Your task to perform on an android device: turn on translation in the chrome app Image 0: 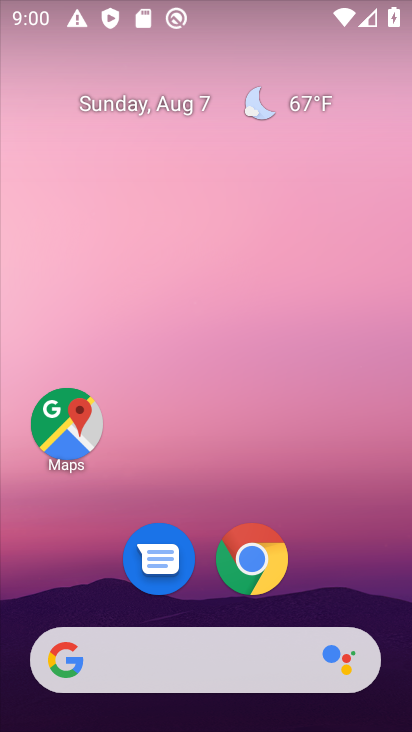
Step 0: drag from (186, 648) to (370, 13)
Your task to perform on an android device: turn on translation in the chrome app Image 1: 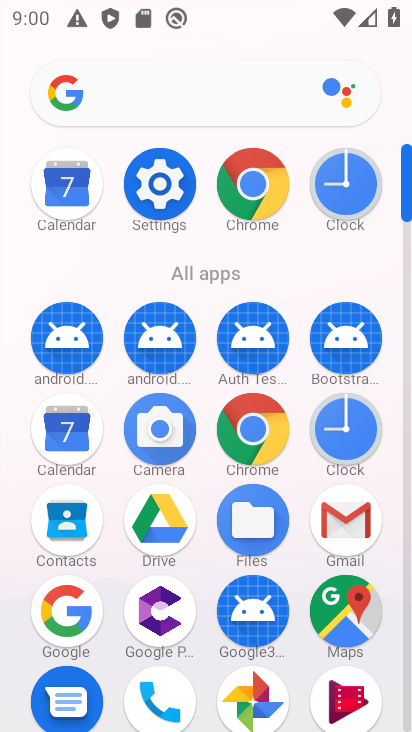
Step 1: click (256, 182)
Your task to perform on an android device: turn on translation in the chrome app Image 2: 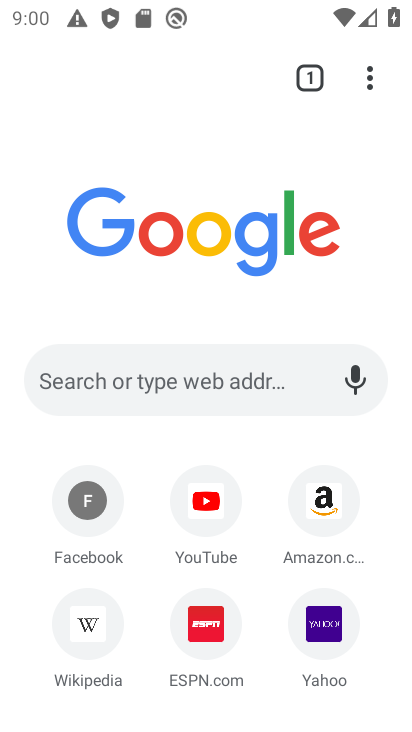
Step 2: click (371, 77)
Your task to perform on an android device: turn on translation in the chrome app Image 3: 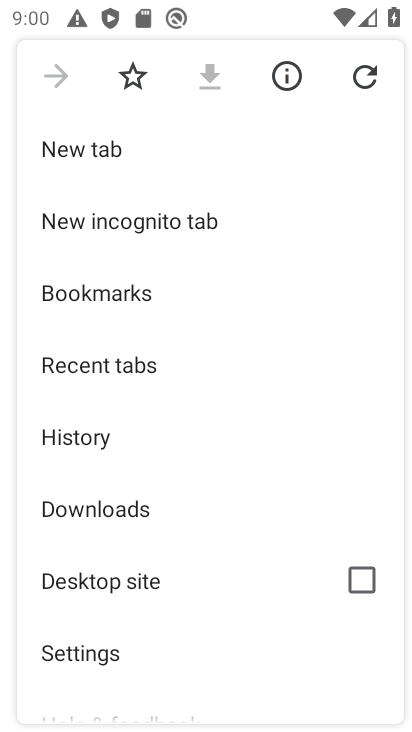
Step 3: click (80, 646)
Your task to perform on an android device: turn on translation in the chrome app Image 4: 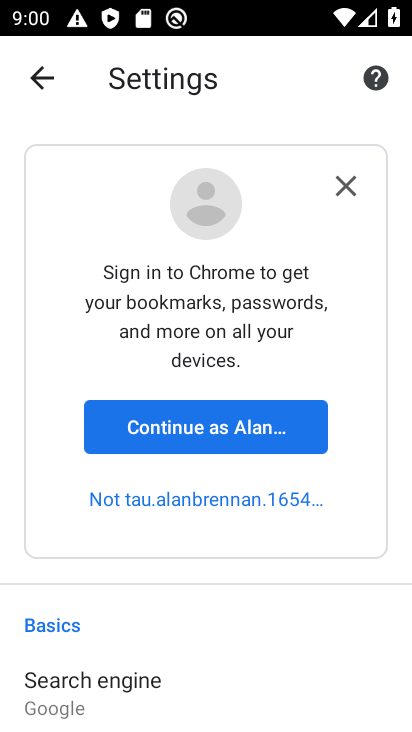
Step 4: drag from (343, 680) to (345, 165)
Your task to perform on an android device: turn on translation in the chrome app Image 5: 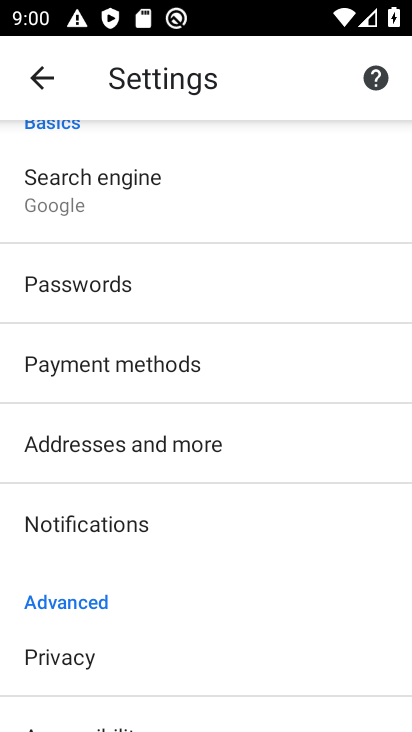
Step 5: drag from (384, 593) to (368, 169)
Your task to perform on an android device: turn on translation in the chrome app Image 6: 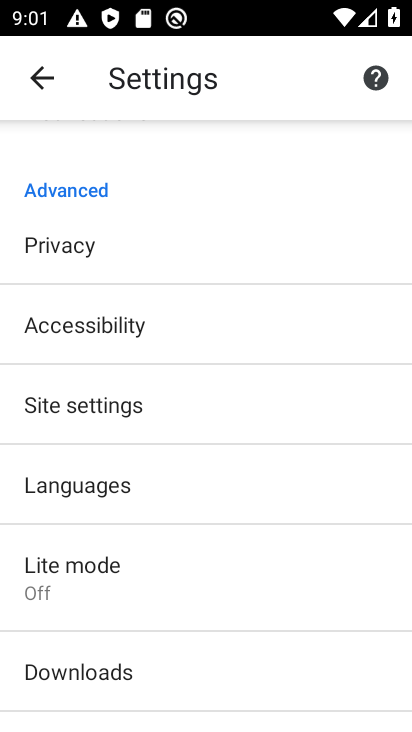
Step 6: click (169, 473)
Your task to perform on an android device: turn on translation in the chrome app Image 7: 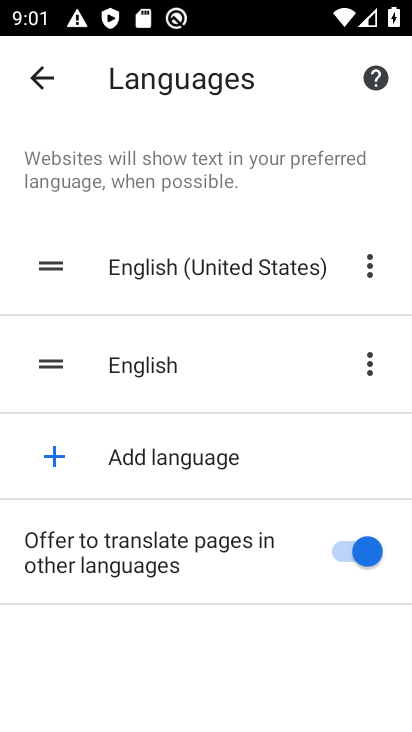
Step 7: click (356, 555)
Your task to perform on an android device: turn on translation in the chrome app Image 8: 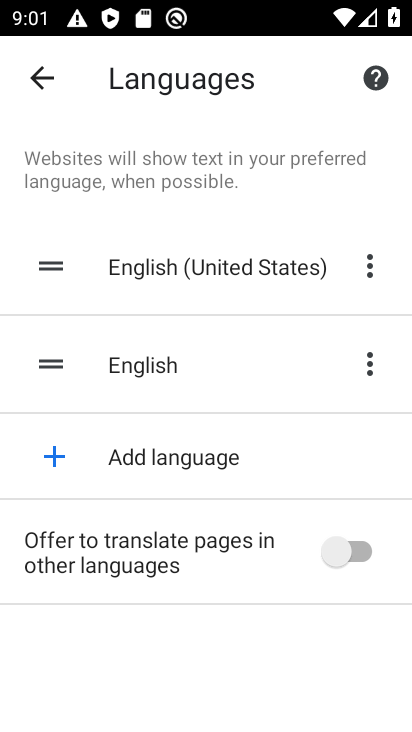
Step 8: click (356, 555)
Your task to perform on an android device: turn on translation in the chrome app Image 9: 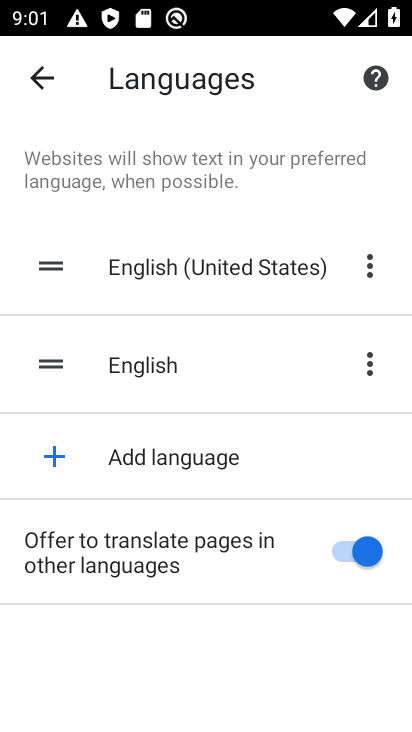
Step 9: task complete